Your task to perform on an android device: change the clock style Image 0: 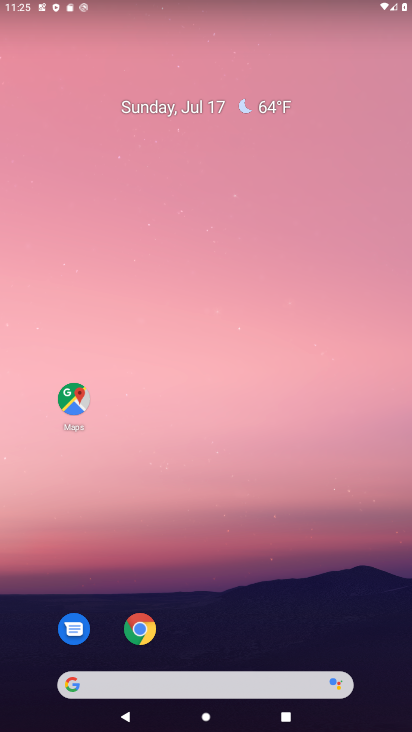
Step 0: drag from (247, 591) to (243, 235)
Your task to perform on an android device: change the clock style Image 1: 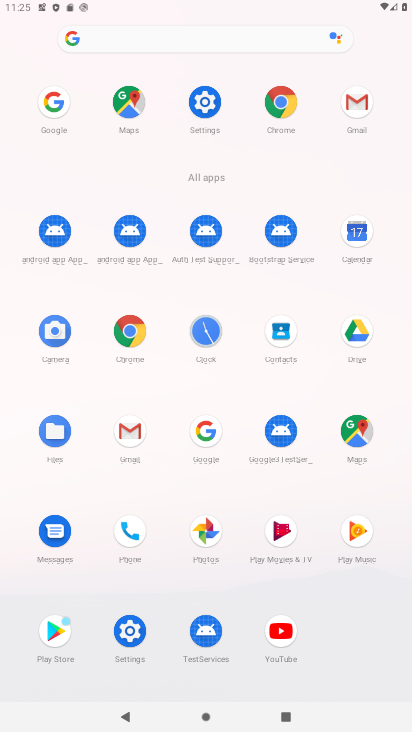
Step 1: click (193, 321)
Your task to perform on an android device: change the clock style Image 2: 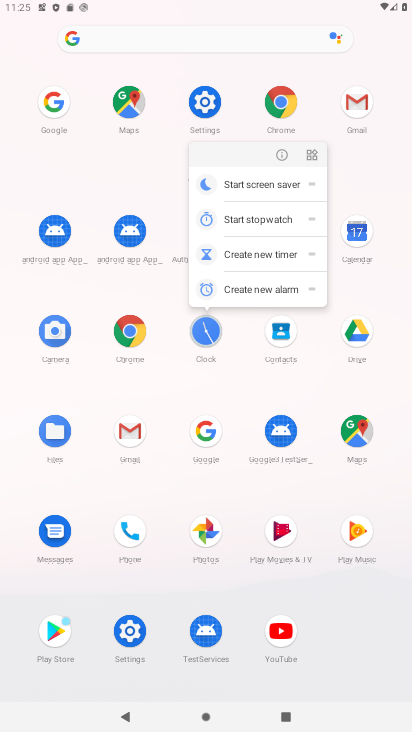
Step 2: click (198, 338)
Your task to perform on an android device: change the clock style Image 3: 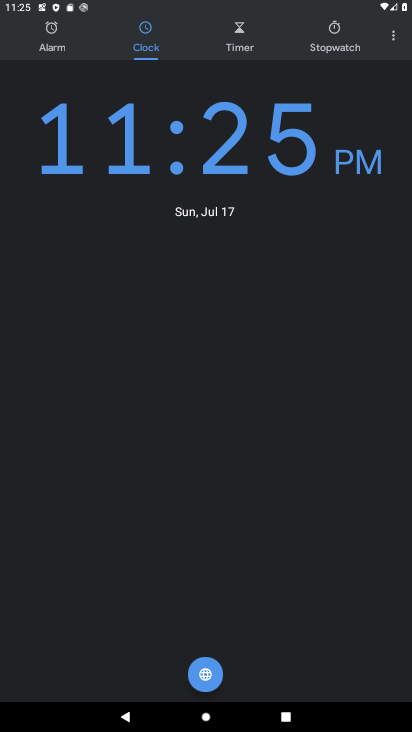
Step 3: click (391, 41)
Your task to perform on an android device: change the clock style Image 4: 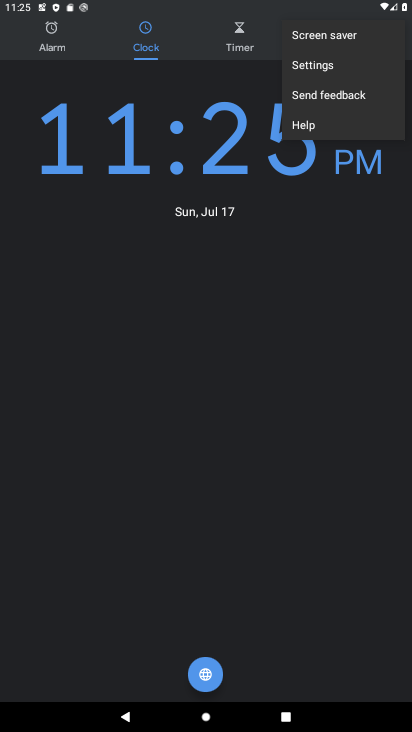
Step 4: click (341, 70)
Your task to perform on an android device: change the clock style Image 5: 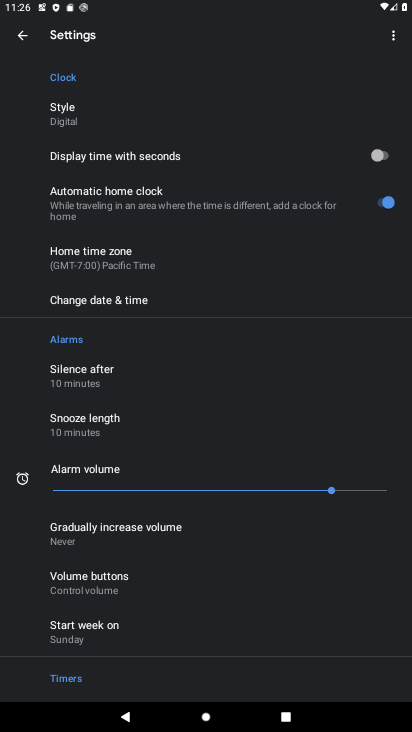
Step 5: click (85, 120)
Your task to perform on an android device: change the clock style Image 6: 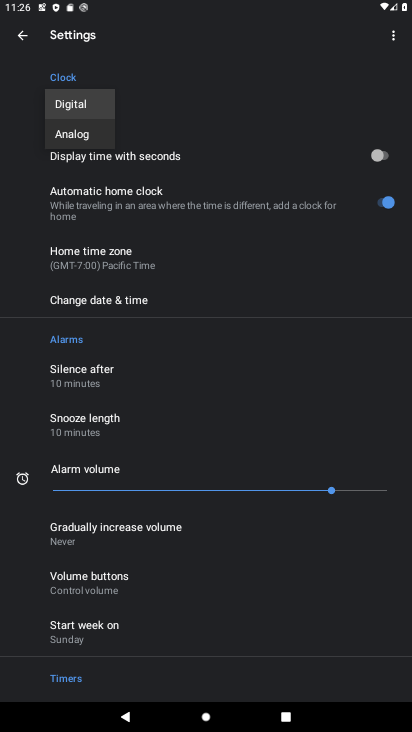
Step 6: click (83, 128)
Your task to perform on an android device: change the clock style Image 7: 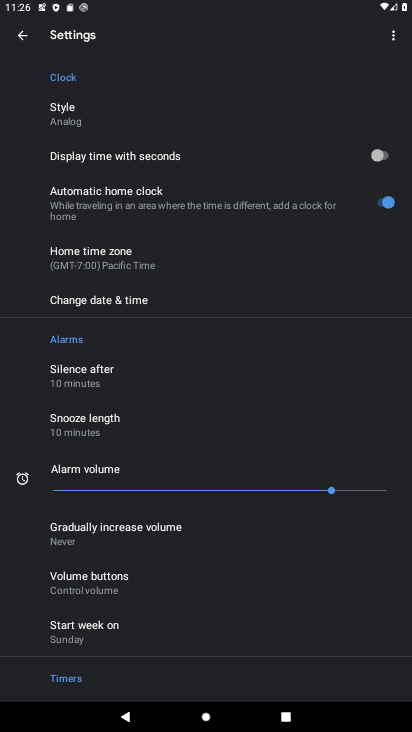
Step 7: task complete